Your task to perform on an android device: Go to ESPN.com Image 0: 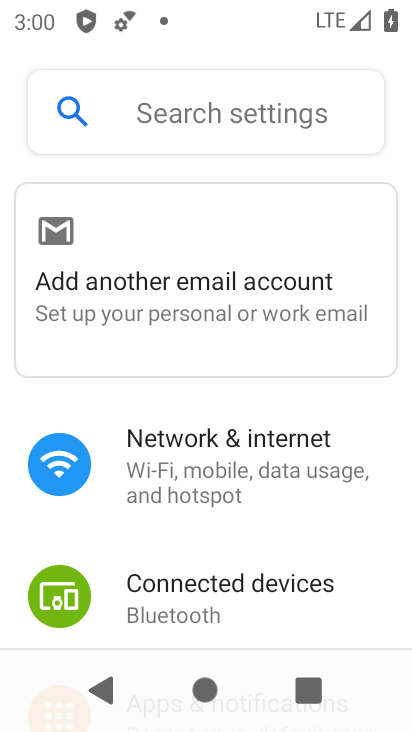
Step 0: press home button
Your task to perform on an android device: Go to ESPN.com Image 1: 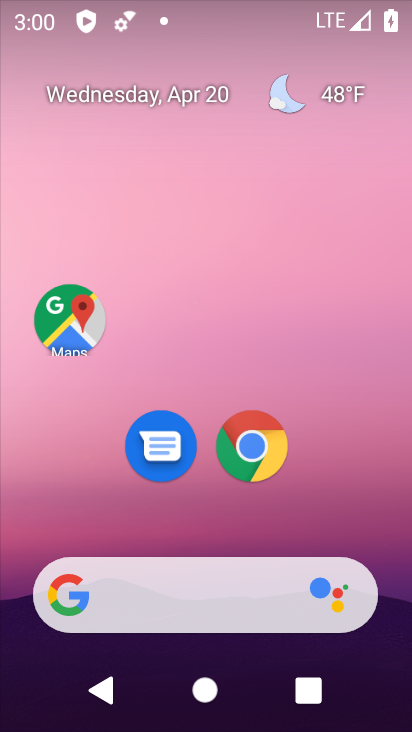
Step 1: drag from (324, 515) to (337, 73)
Your task to perform on an android device: Go to ESPN.com Image 2: 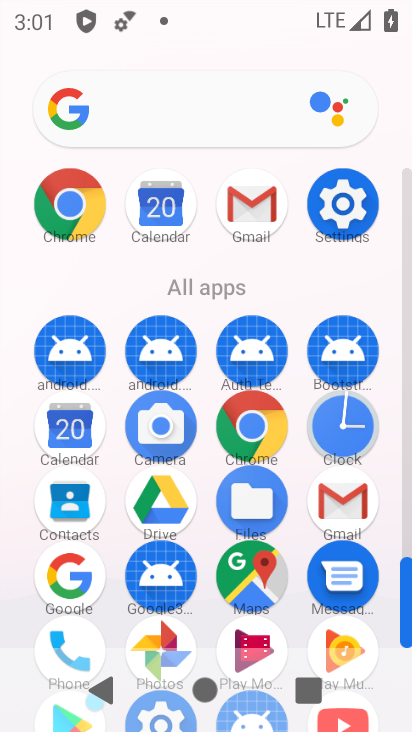
Step 2: click (69, 214)
Your task to perform on an android device: Go to ESPN.com Image 3: 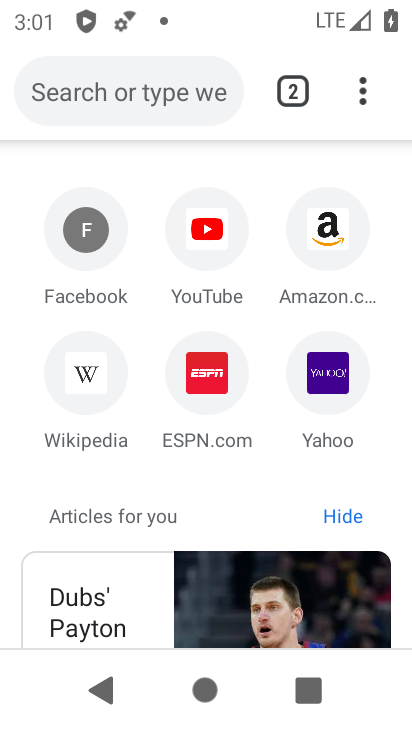
Step 3: click (139, 92)
Your task to perform on an android device: Go to ESPN.com Image 4: 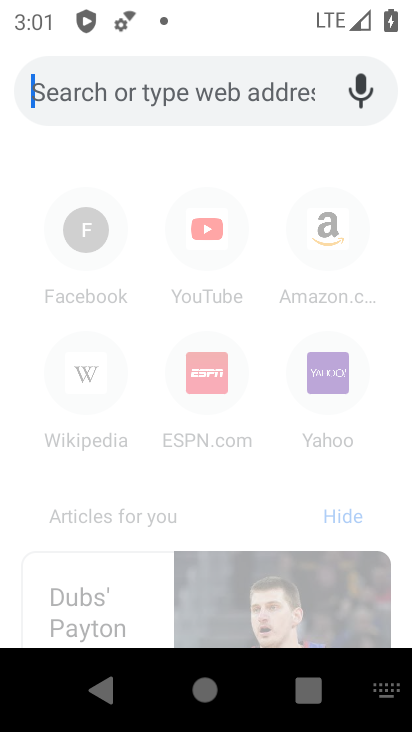
Step 4: type "ESPN.com"
Your task to perform on an android device: Go to ESPN.com Image 5: 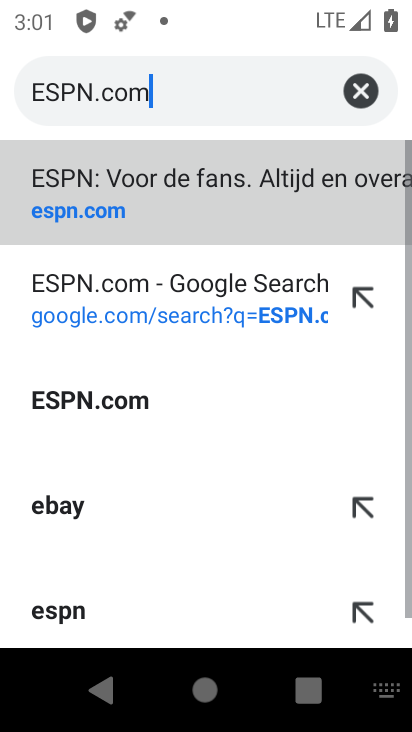
Step 5: type ""
Your task to perform on an android device: Go to ESPN.com Image 6: 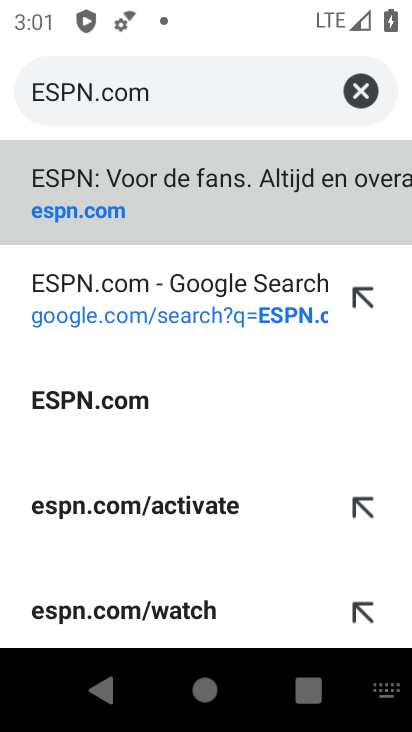
Step 6: click (119, 297)
Your task to perform on an android device: Go to ESPN.com Image 7: 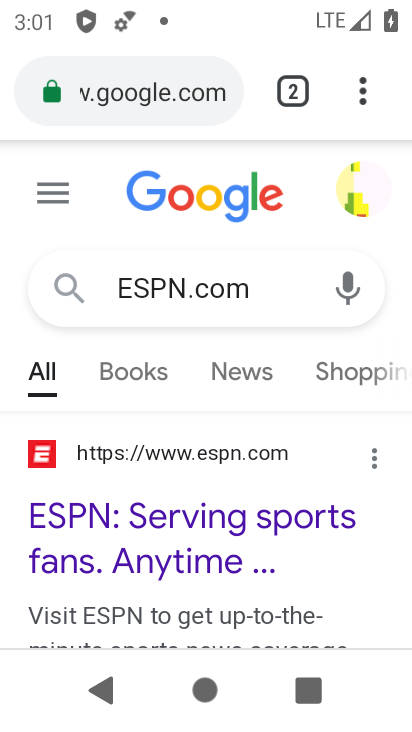
Step 7: click (77, 517)
Your task to perform on an android device: Go to ESPN.com Image 8: 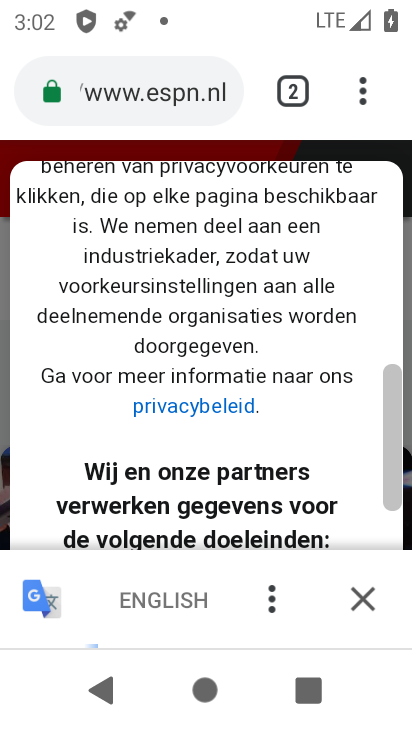
Step 8: task complete